Your task to perform on an android device: turn on notifications settings in the gmail app Image 0: 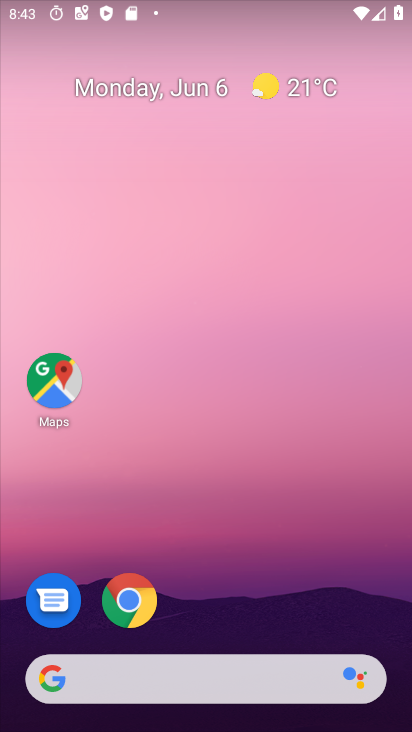
Step 0: drag from (294, 551) to (236, 34)
Your task to perform on an android device: turn on notifications settings in the gmail app Image 1: 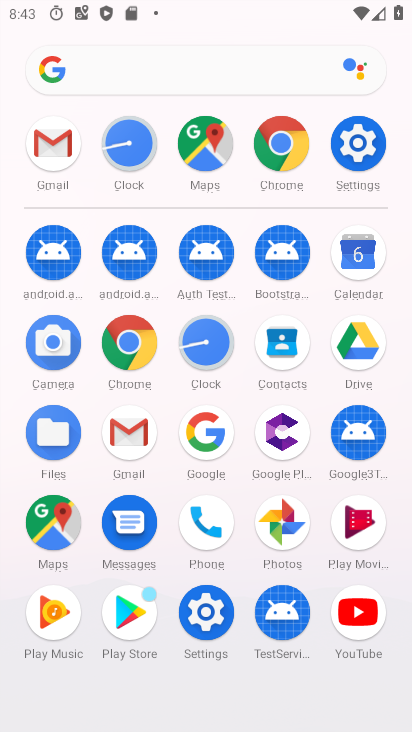
Step 1: click (124, 425)
Your task to perform on an android device: turn on notifications settings in the gmail app Image 2: 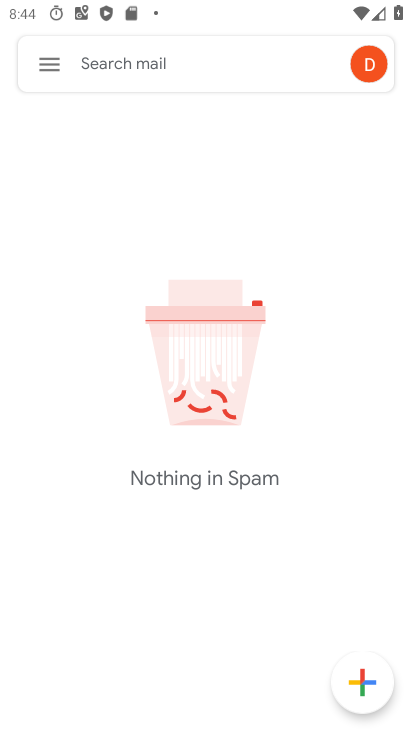
Step 2: click (48, 81)
Your task to perform on an android device: turn on notifications settings in the gmail app Image 3: 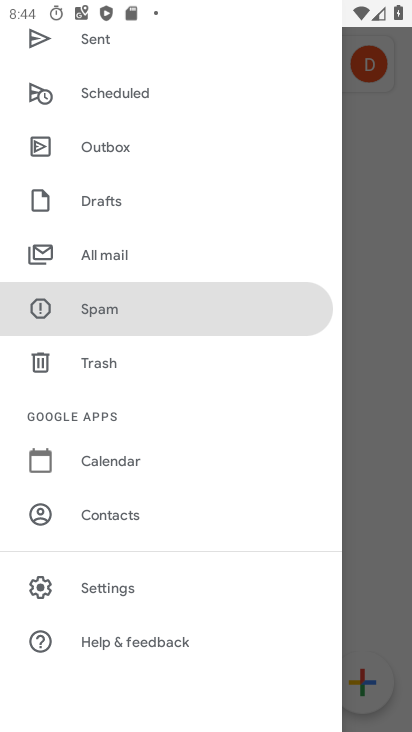
Step 3: click (118, 589)
Your task to perform on an android device: turn on notifications settings in the gmail app Image 4: 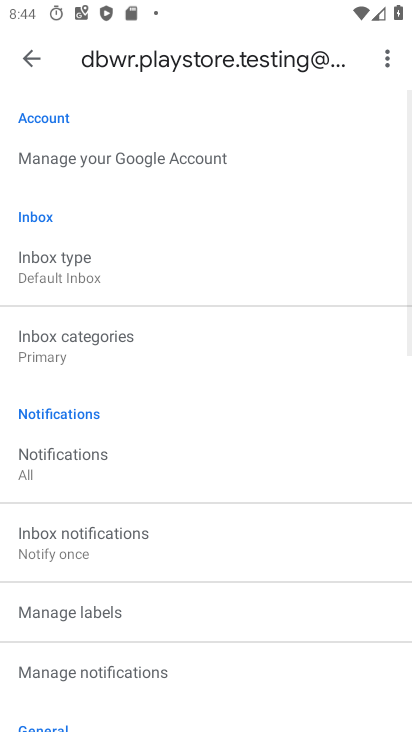
Step 4: drag from (262, 579) to (286, 201)
Your task to perform on an android device: turn on notifications settings in the gmail app Image 5: 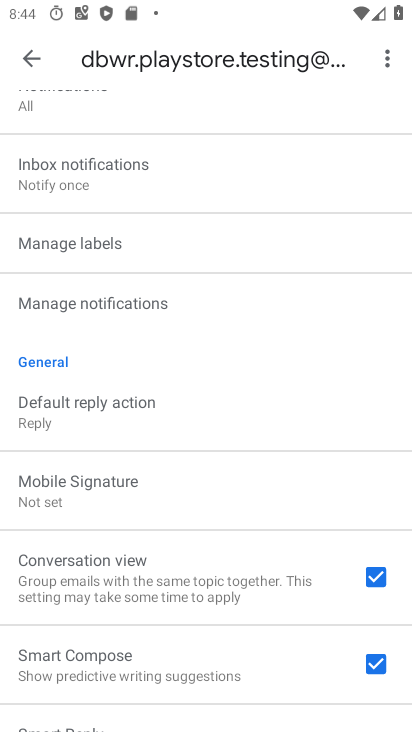
Step 5: click (110, 302)
Your task to perform on an android device: turn on notifications settings in the gmail app Image 6: 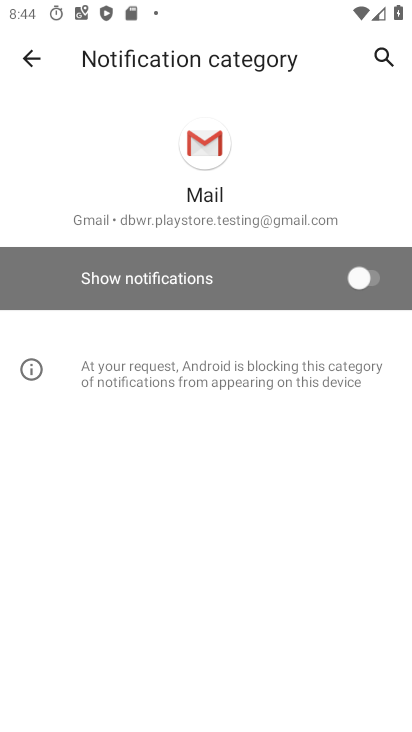
Step 6: click (360, 284)
Your task to perform on an android device: turn on notifications settings in the gmail app Image 7: 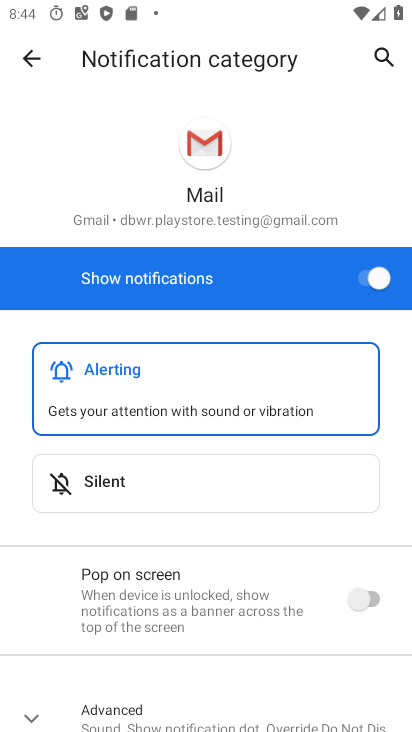
Step 7: task complete